Your task to perform on an android device: turn off wifi Image 0: 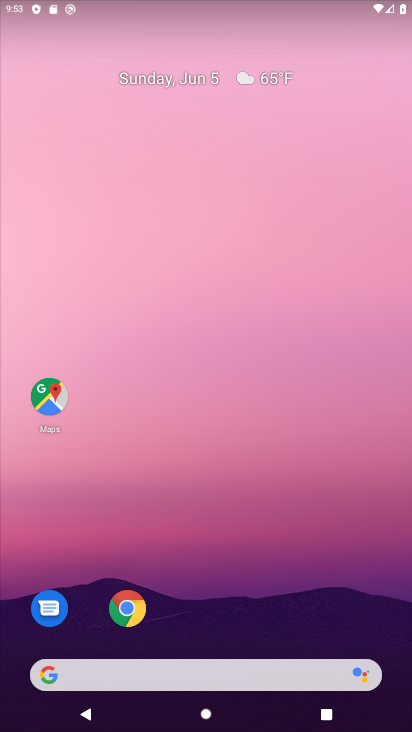
Step 0: drag from (206, 678) to (162, 88)
Your task to perform on an android device: turn off wifi Image 1: 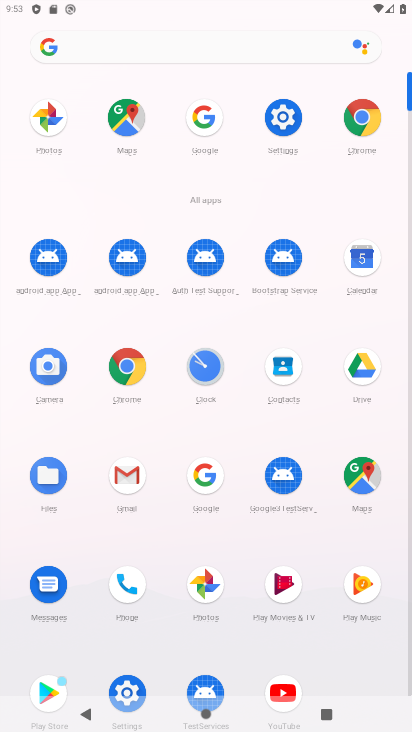
Step 1: click (288, 119)
Your task to perform on an android device: turn off wifi Image 2: 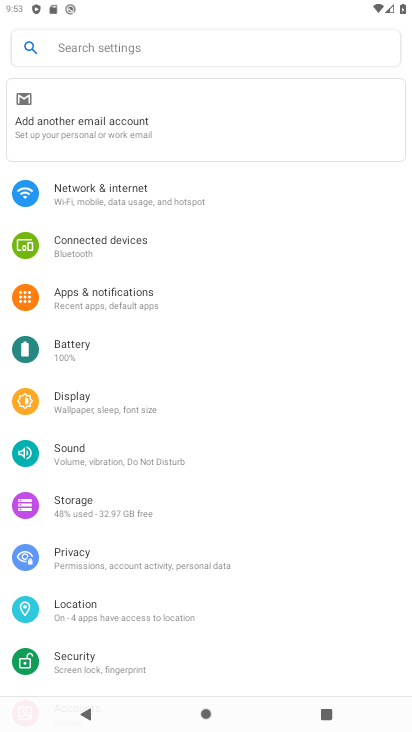
Step 2: click (127, 198)
Your task to perform on an android device: turn off wifi Image 3: 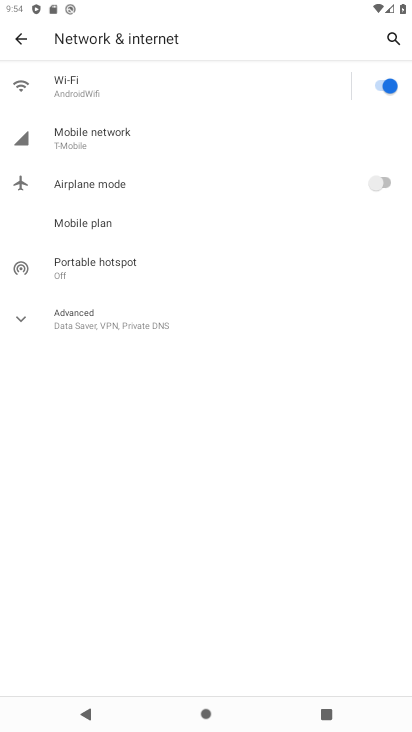
Step 3: click (388, 96)
Your task to perform on an android device: turn off wifi Image 4: 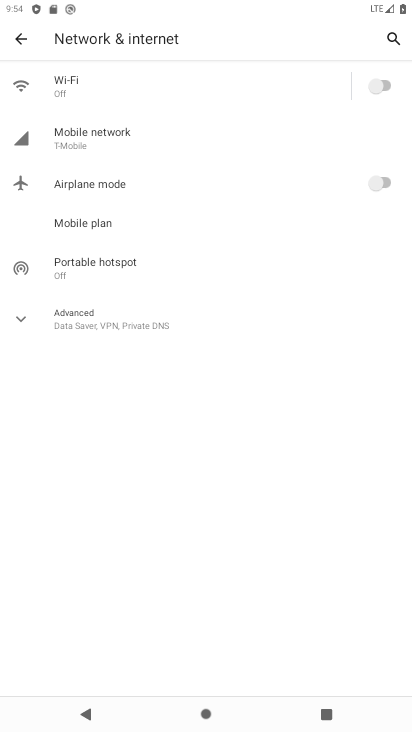
Step 4: task complete